Your task to perform on an android device: turn on location history Image 0: 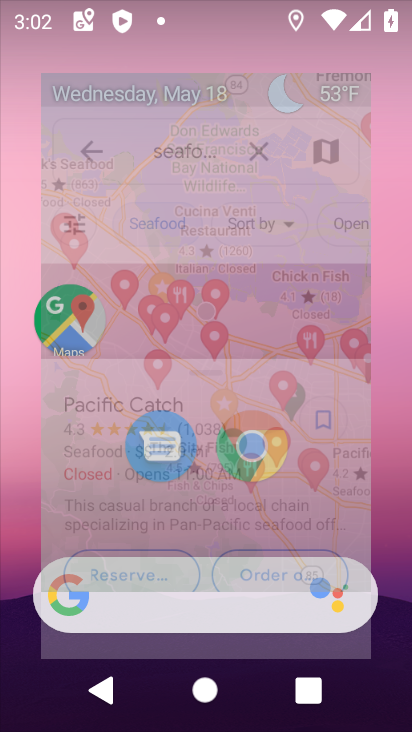
Step 0: press back button
Your task to perform on an android device: turn on location history Image 1: 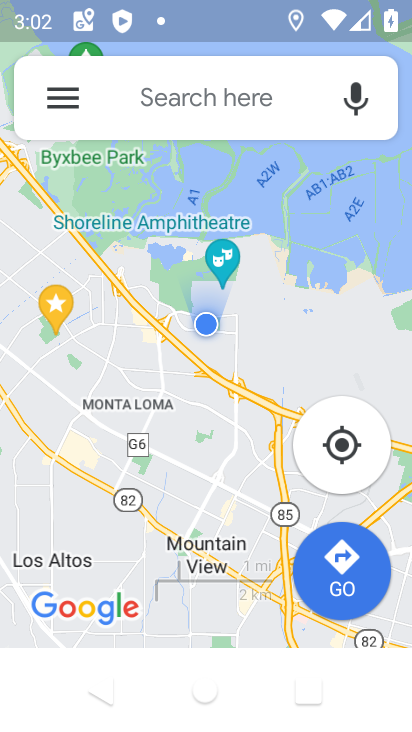
Step 1: click (70, 99)
Your task to perform on an android device: turn on location history Image 2: 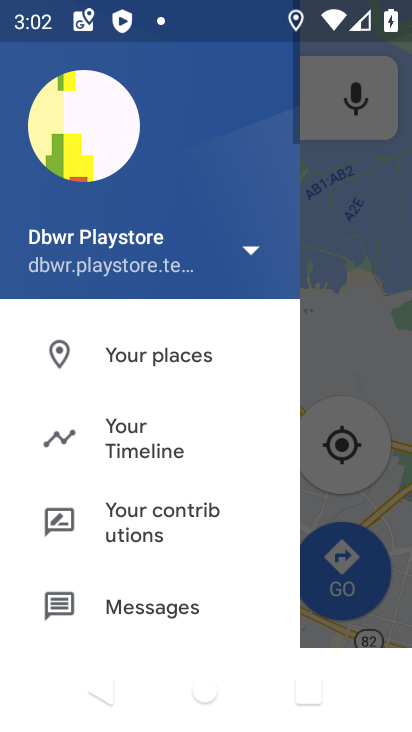
Step 2: press home button
Your task to perform on an android device: turn on location history Image 3: 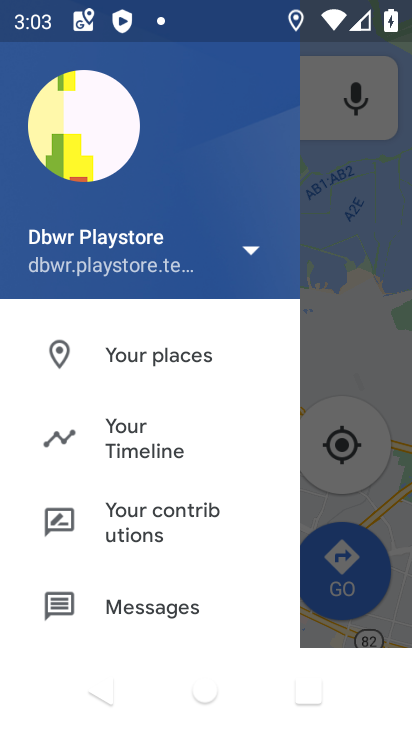
Step 3: press home button
Your task to perform on an android device: turn on location history Image 4: 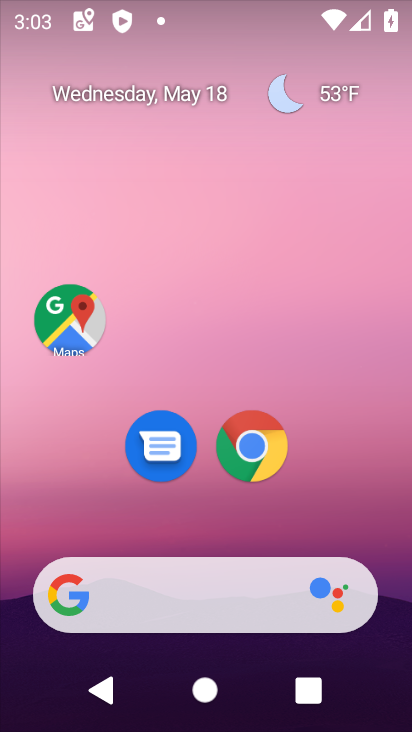
Step 4: drag from (361, 550) to (321, 1)
Your task to perform on an android device: turn on location history Image 5: 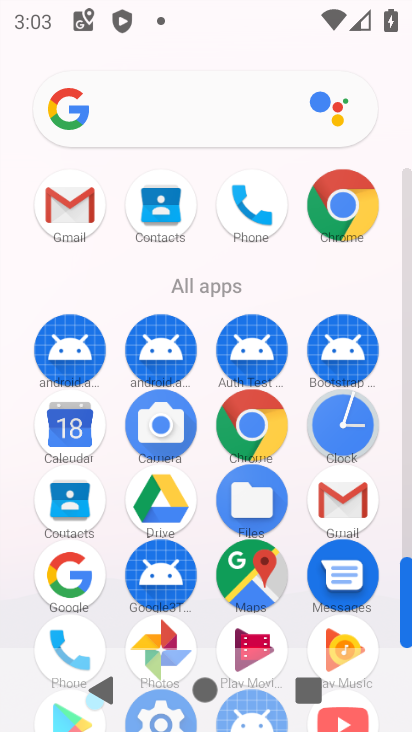
Step 5: drag from (50, 3) to (218, 39)
Your task to perform on an android device: turn on location history Image 6: 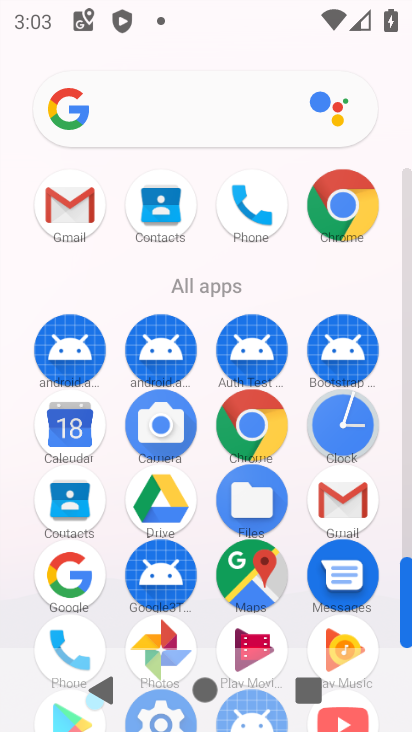
Step 6: drag from (219, 316) to (219, 43)
Your task to perform on an android device: turn on location history Image 7: 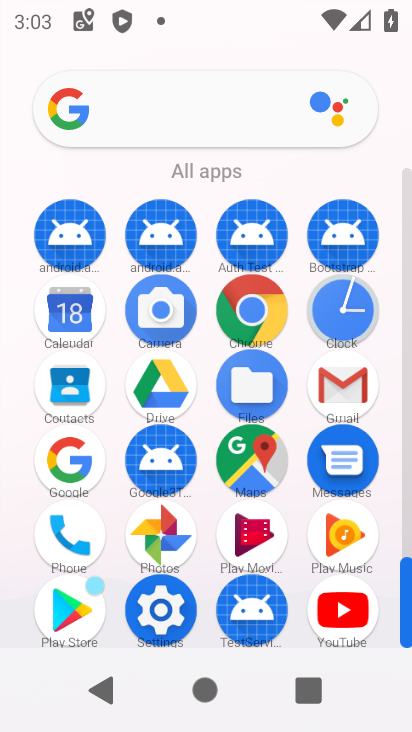
Step 7: click (171, 605)
Your task to perform on an android device: turn on location history Image 8: 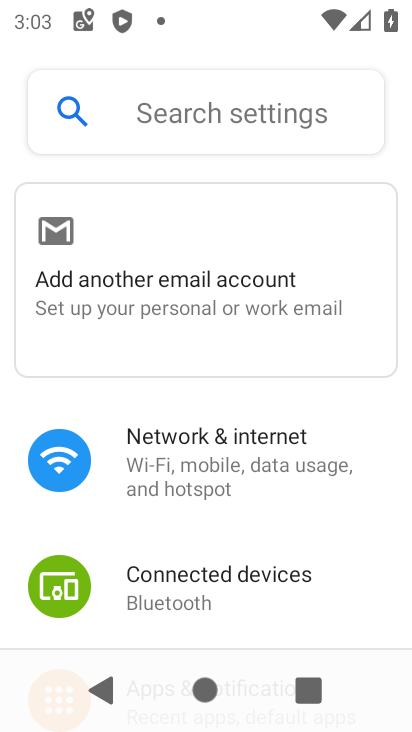
Step 8: drag from (212, 535) to (234, 175)
Your task to perform on an android device: turn on location history Image 9: 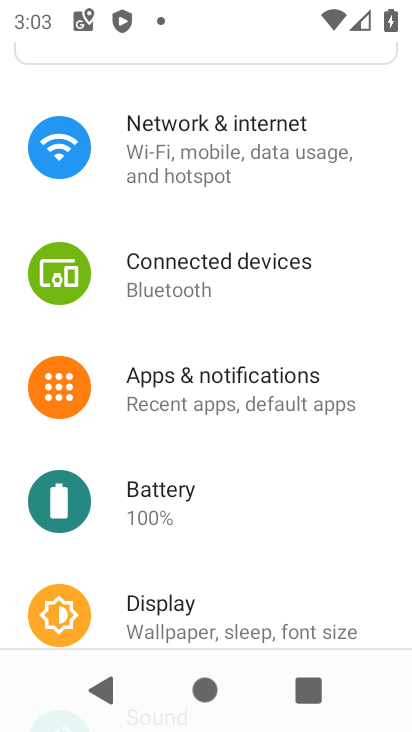
Step 9: drag from (245, 597) to (231, 271)
Your task to perform on an android device: turn on location history Image 10: 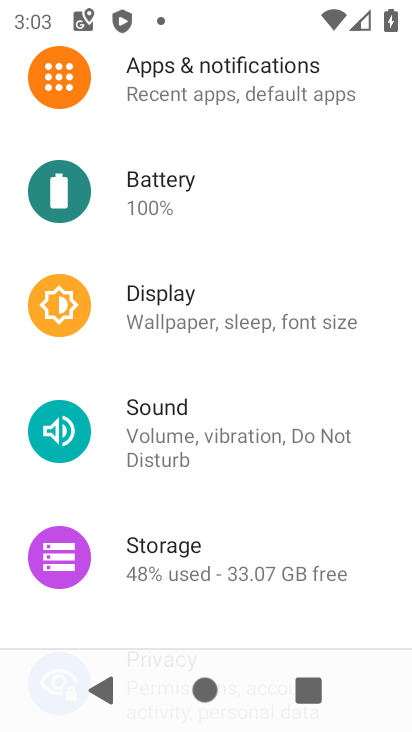
Step 10: drag from (231, 534) to (205, 133)
Your task to perform on an android device: turn on location history Image 11: 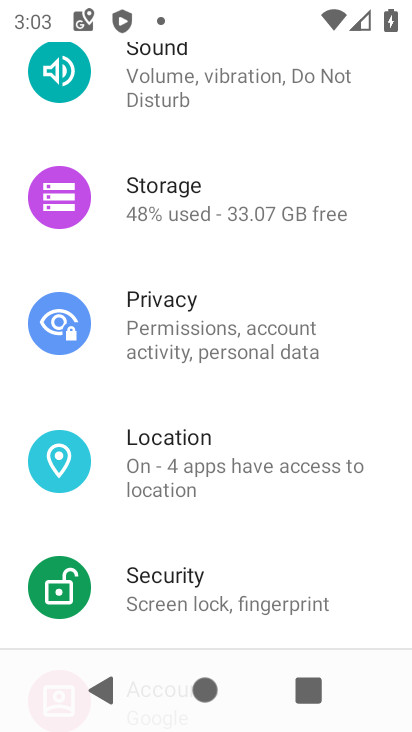
Step 11: click (199, 470)
Your task to perform on an android device: turn on location history Image 12: 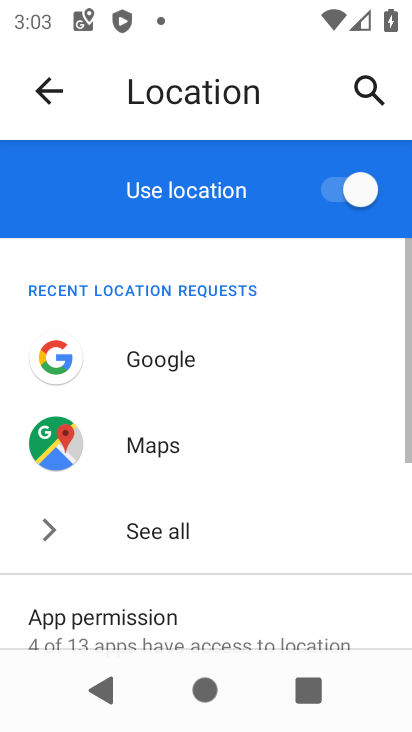
Step 12: drag from (223, 602) to (174, 220)
Your task to perform on an android device: turn on location history Image 13: 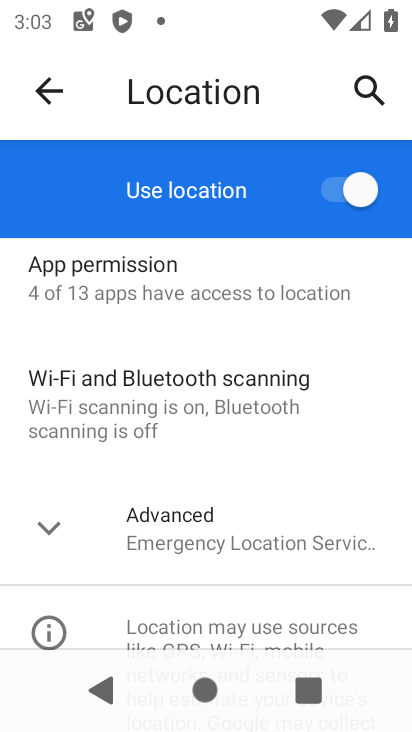
Step 13: click (216, 546)
Your task to perform on an android device: turn on location history Image 14: 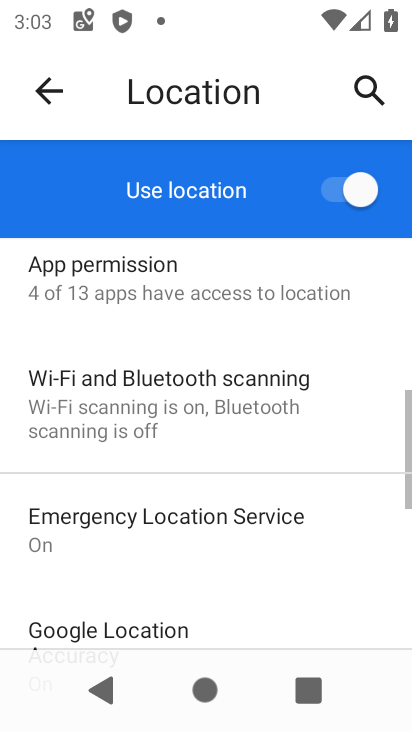
Step 14: task complete